Your task to perform on an android device: make emails show in primary in the gmail app Image 0: 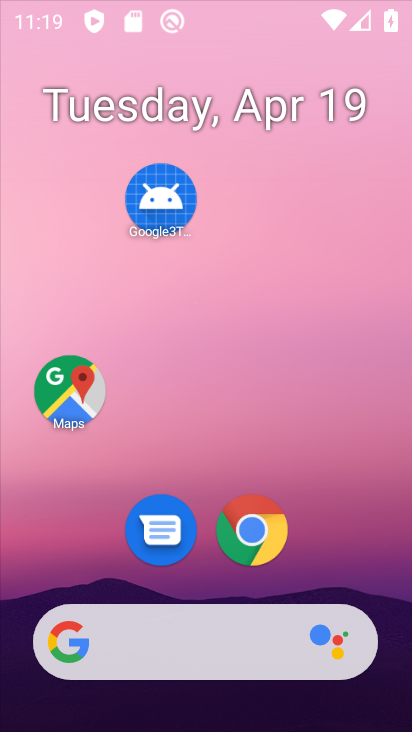
Step 0: click (324, 669)
Your task to perform on an android device: make emails show in primary in the gmail app Image 1: 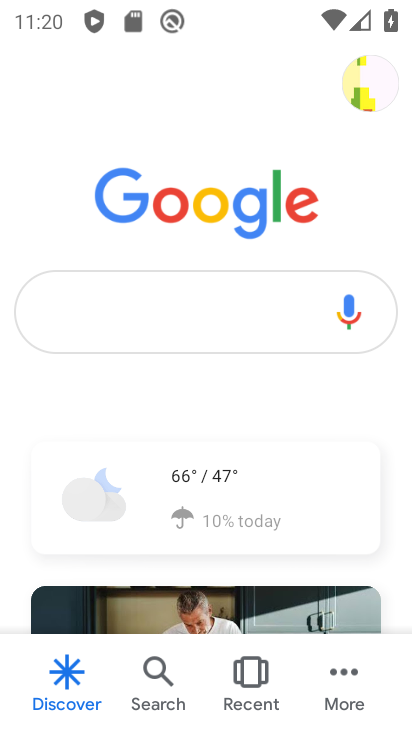
Step 1: press home button
Your task to perform on an android device: make emails show in primary in the gmail app Image 2: 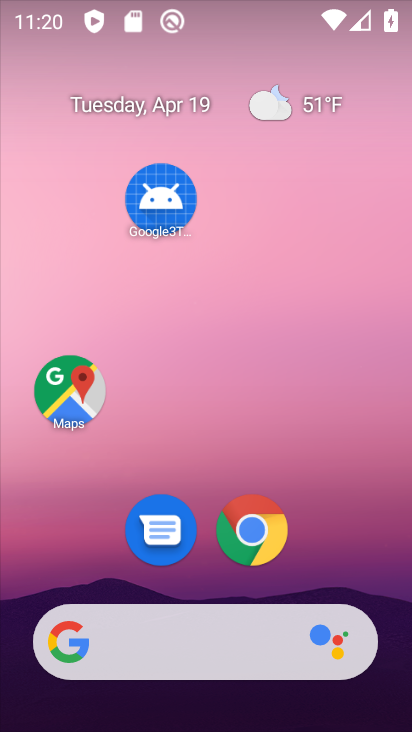
Step 2: drag from (368, 575) to (369, 77)
Your task to perform on an android device: make emails show in primary in the gmail app Image 3: 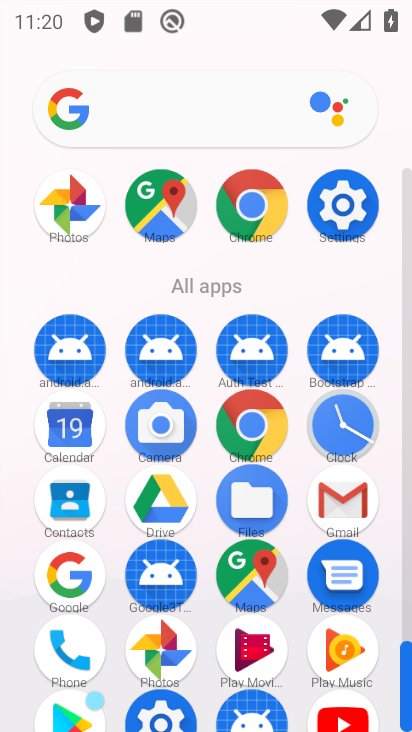
Step 3: click (342, 513)
Your task to perform on an android device: make emails show in primary in the gmail app Image 4: 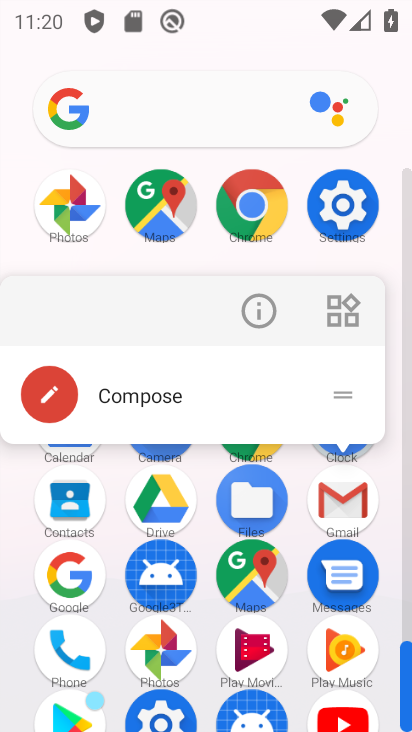
Step 4: click (335, 505)
Your task to perform on an android device: make emails show in primary in the gmail app Image 5: 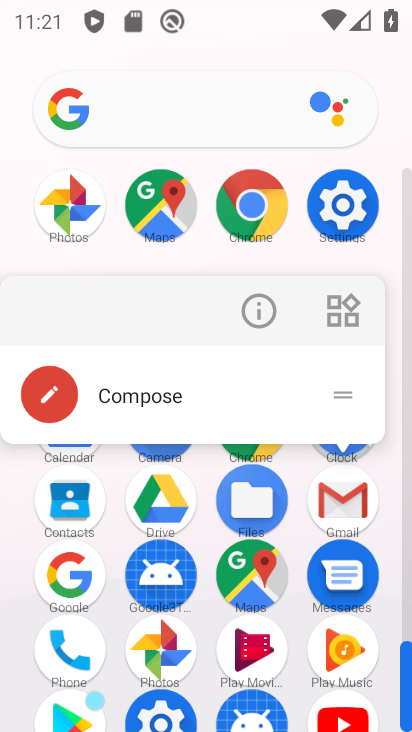
Step 5: click (354, 512)
Your task to perform on an android device: make emails show in primary in the gmail app Image 6: 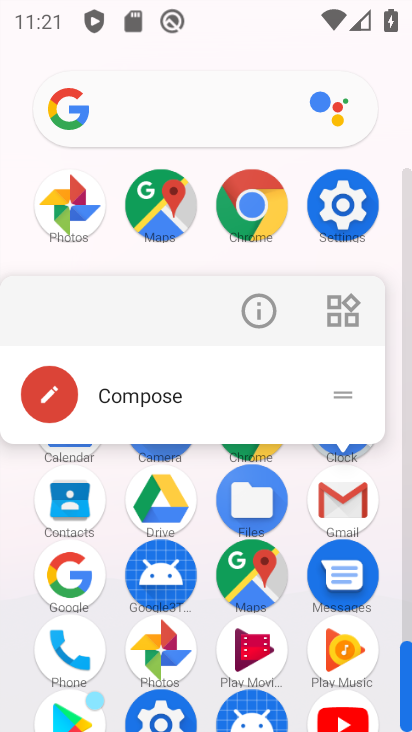
Step 6: click (348, 496)
Your task to perform on an android device: make emails show in primary in the gmail app Image 7: 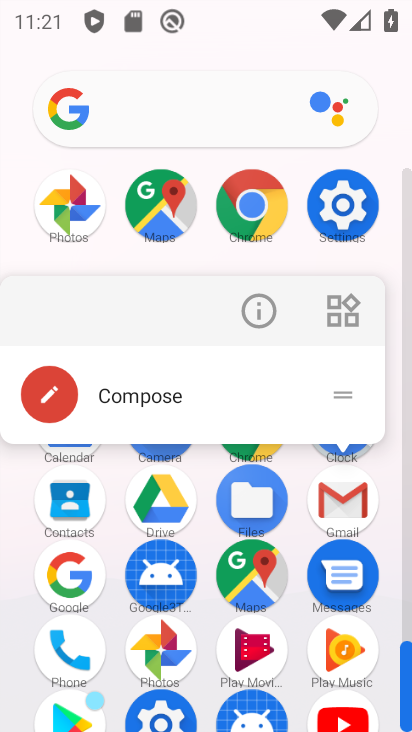
Step 7: click (338, 499)
Your task to perform on an android device: make emails show in primary in the gmail app Image 8: 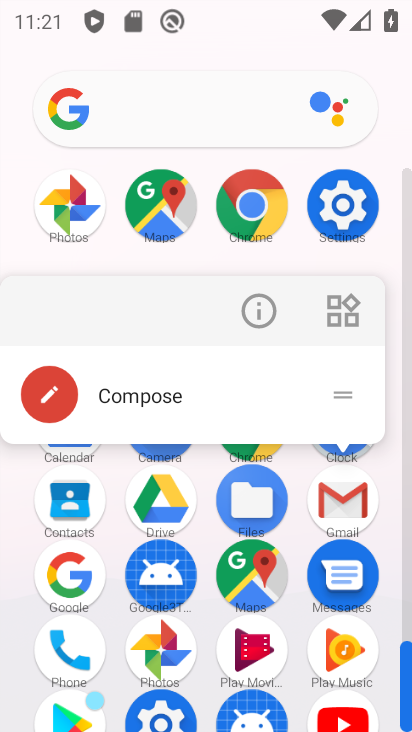
Step 8: click (337, 498)
Your task to perform on an android device: make emails show in primary in the gmail app Image 9: 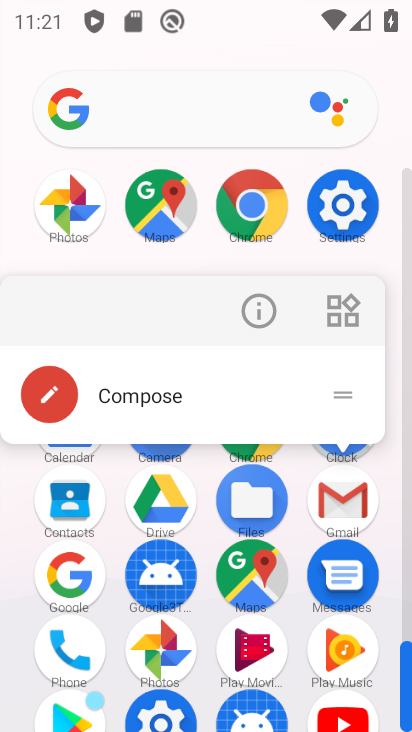
Step 9: click (352, 517)
Your task to perform on an android device: make emails show in primary in the gmail app Image 10: 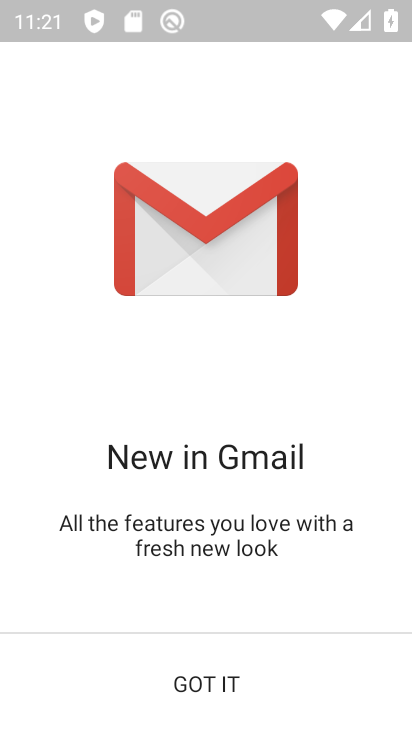
Step 10: click (218, 679)
Your task to perform on an android device: make emails show in primary in the gmail app Image 11: 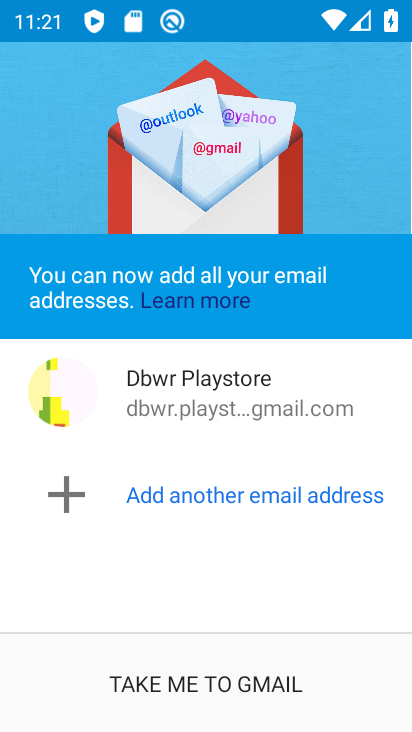
Step 11: click (215, 677)
Your task to perform on an android device: make emails show in primary in the gmail app Image 12: 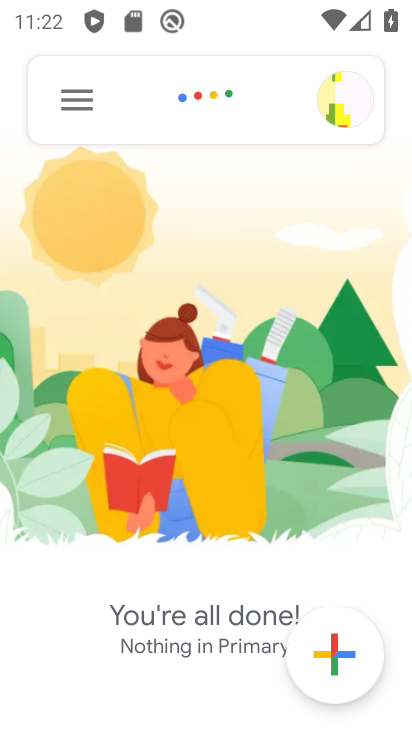
Step 12: click (70, 97)
Your task to perform on an android device: make emails show in primary in the gmail app Image 13: 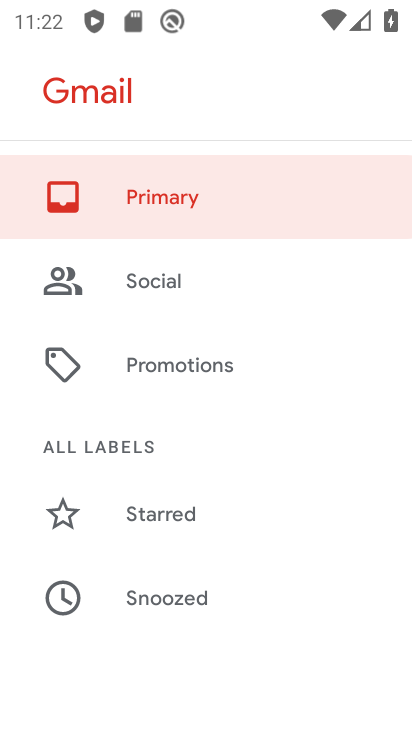
Step 13: task complete